Your task to perform on an android device: delete location history Image 0: 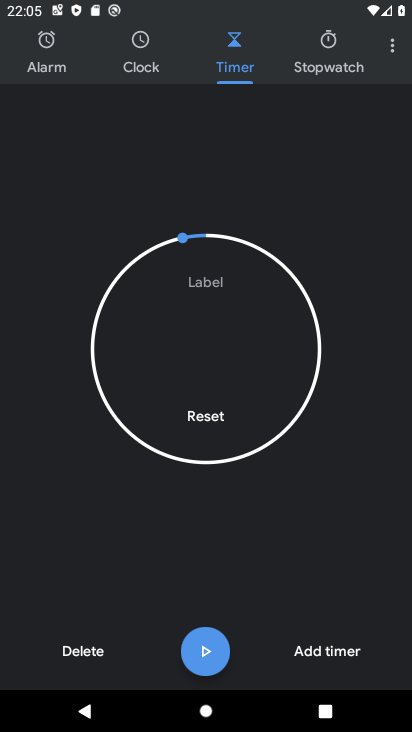
Step 0: press home button
Your task to perform on an android device: delete location history Image 1: 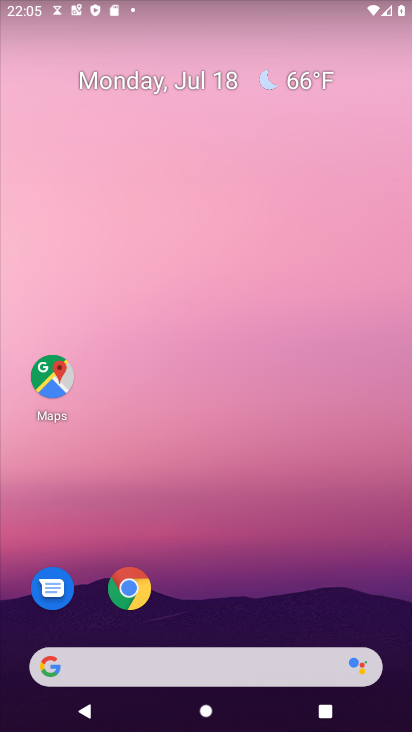
Step 1: click (48, 376)
Your task to perform on an android device: delete location history Image 2: 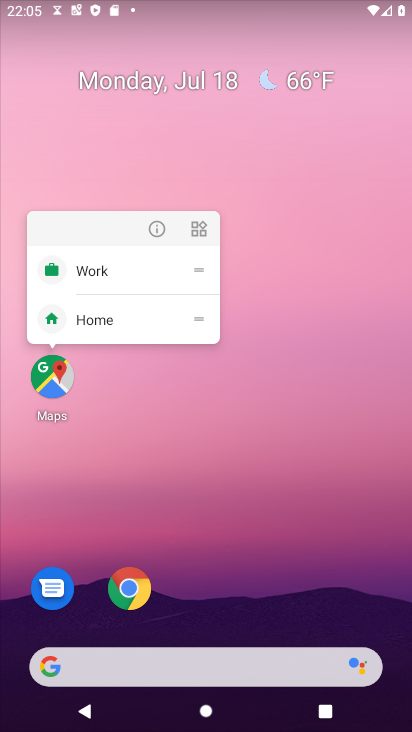
Step 2: click (55, 383)
Your task to perform on an android device: delete location history Image 3: 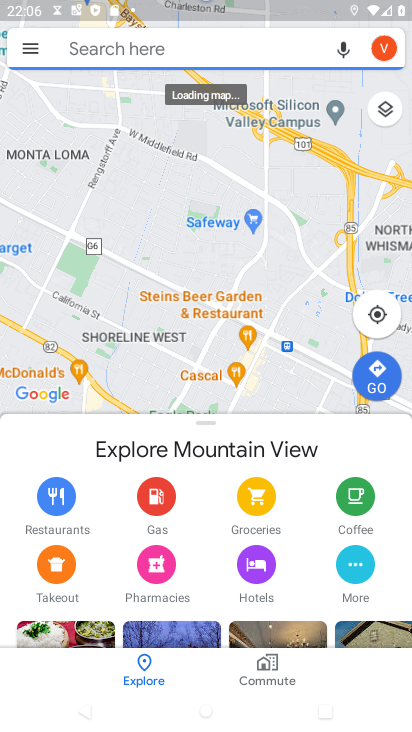
Step 3: click (29, 42)
Your task to perform on an android device: delete location history Image 4: 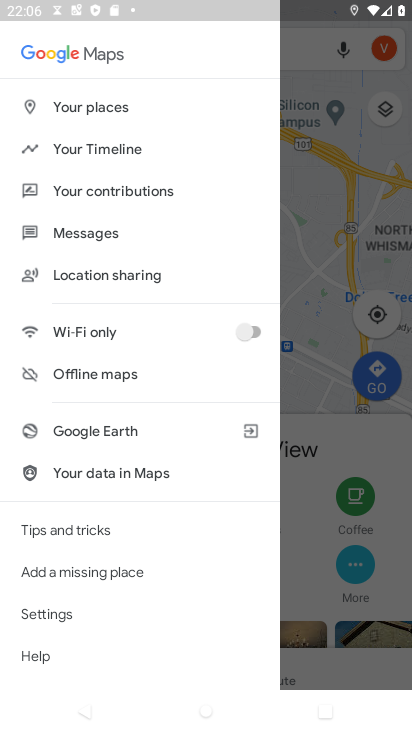
Step 4: click (113, 149)
Your task to perform on an android device: delete location history Image 5: 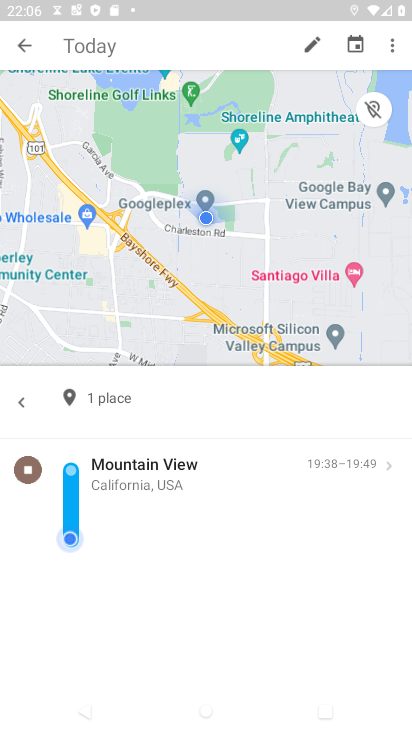
Step 5: click (393, 41)
Your task to perform on an android device: delete location history Image 6: 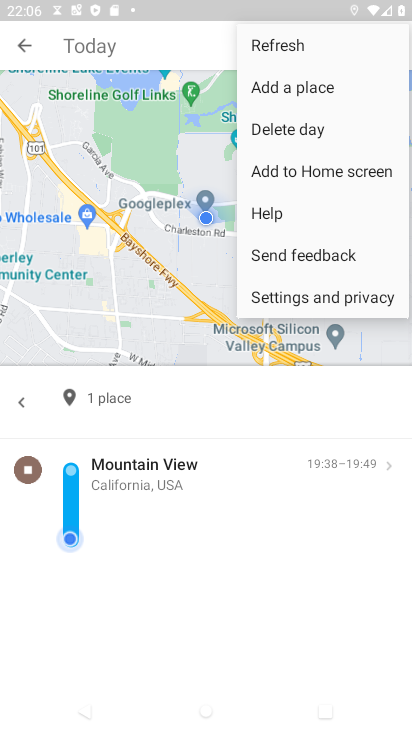
Step 6: click (309, 303)
Your task to perform on an android device: delete location history Image 7: 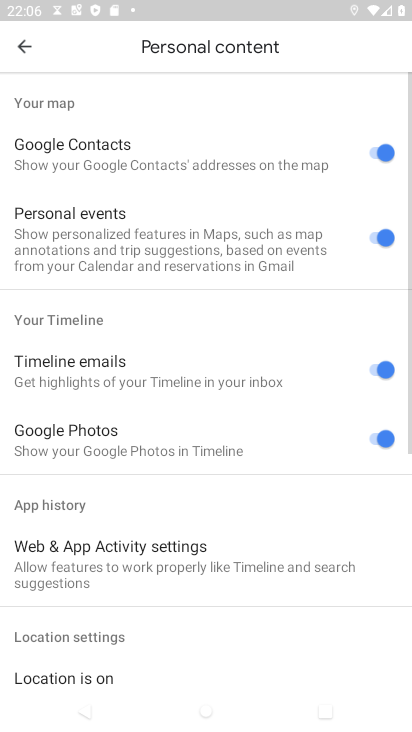
Step 7: drag from (187, 599) to (334, 140)
Your task to perform on an android device: delete location history Image 8: 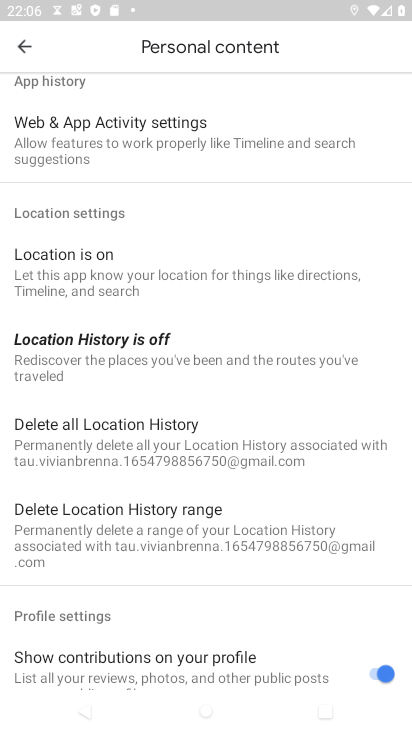
Step 8: click (129, 441)
Your task to perform on an android device: delete location history Image 9: 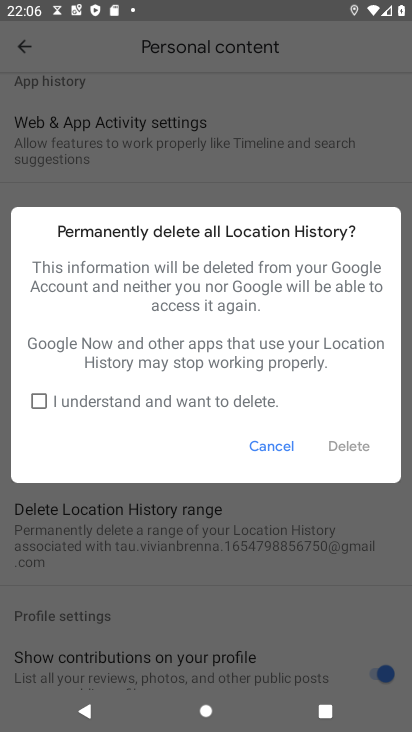
Step 9: click (42, 404)
Your task to perform on an android device: delete location history Image 10: 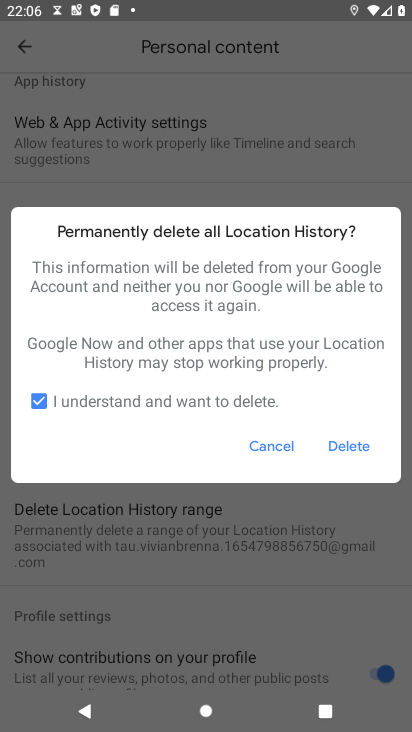
Step 10: click (356, 449)
Your task to perform on an android device: delete location history Image 11: 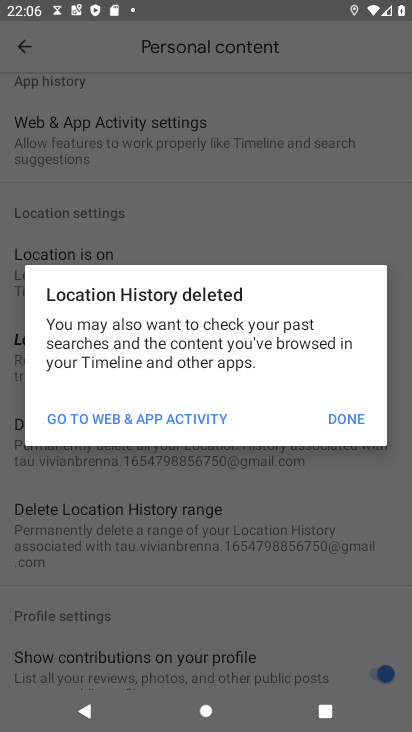
Step 11: click (352, 417)
Your task to perform on an android device: delete location history Image 12: 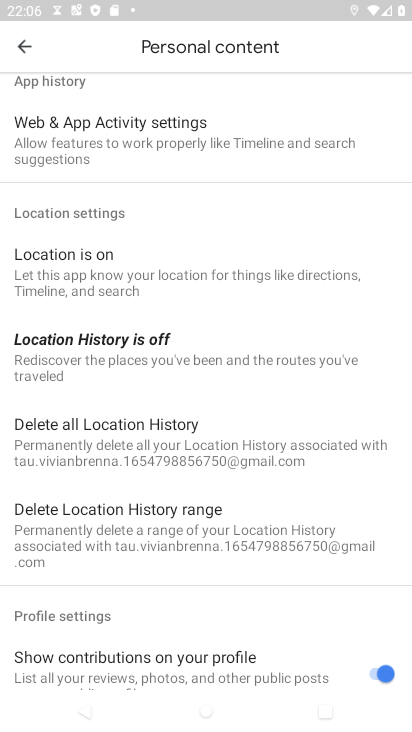
Step 12: task complete